Your task to perform on an android device: toggle wifi Image 0: 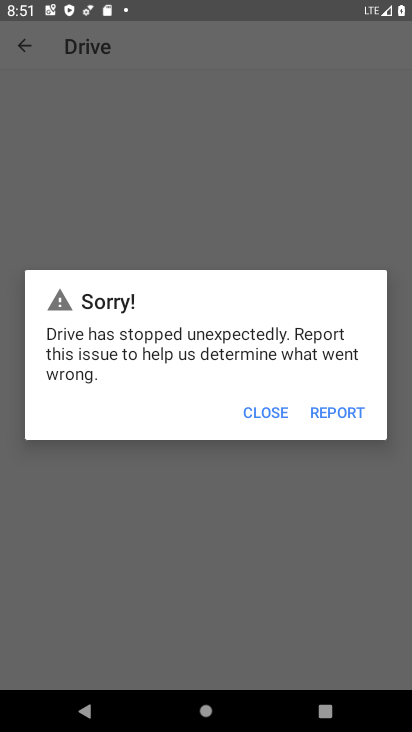
Step 0: press home button
Your task to perform on an android device: toggle wifi Image 1: 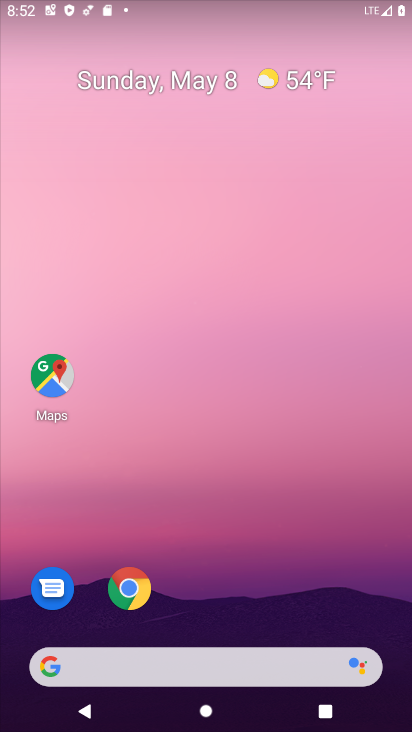
Step 1: drag from (43, 642) to (275, 304)
Your task to perform on an android device: toggle wifi Image 2: 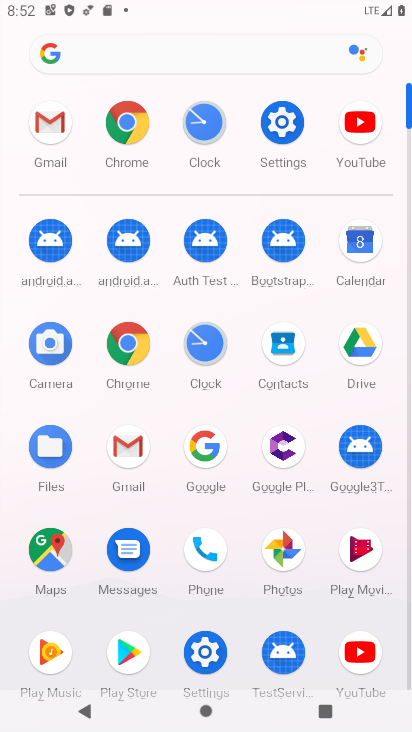
Step 2: click (268, 115)
Your task to perform on an android device: toggle wifi Image 3: 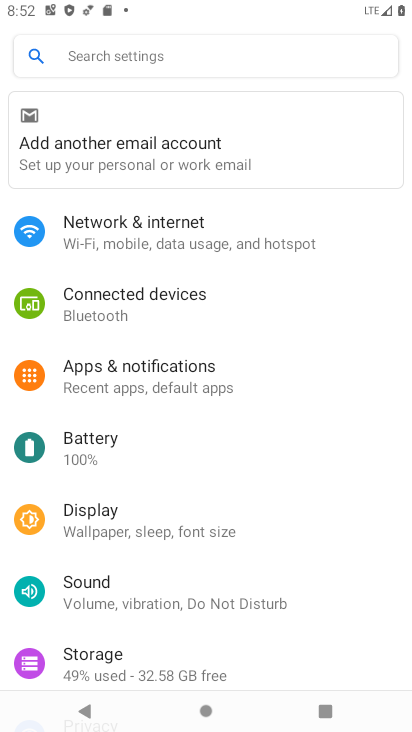
Step 3: click (162, 246)
Your task to perform on an android device: toggle wifi Image 4: 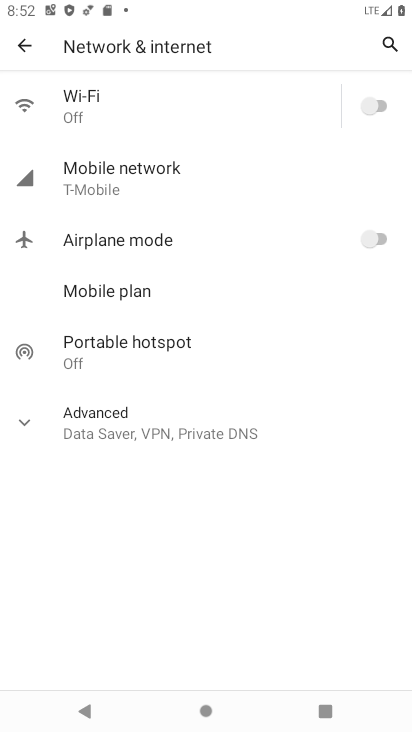
Step 4: click (375, 106)
Your task to perform on an android device: toggle wifi Image 5: 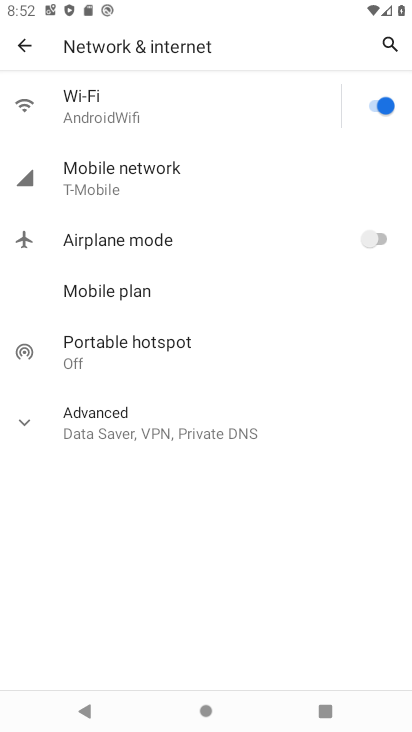
Step 5: task complete